Your task to perform on an android device: install app "Airtel Thanks" Image 0: 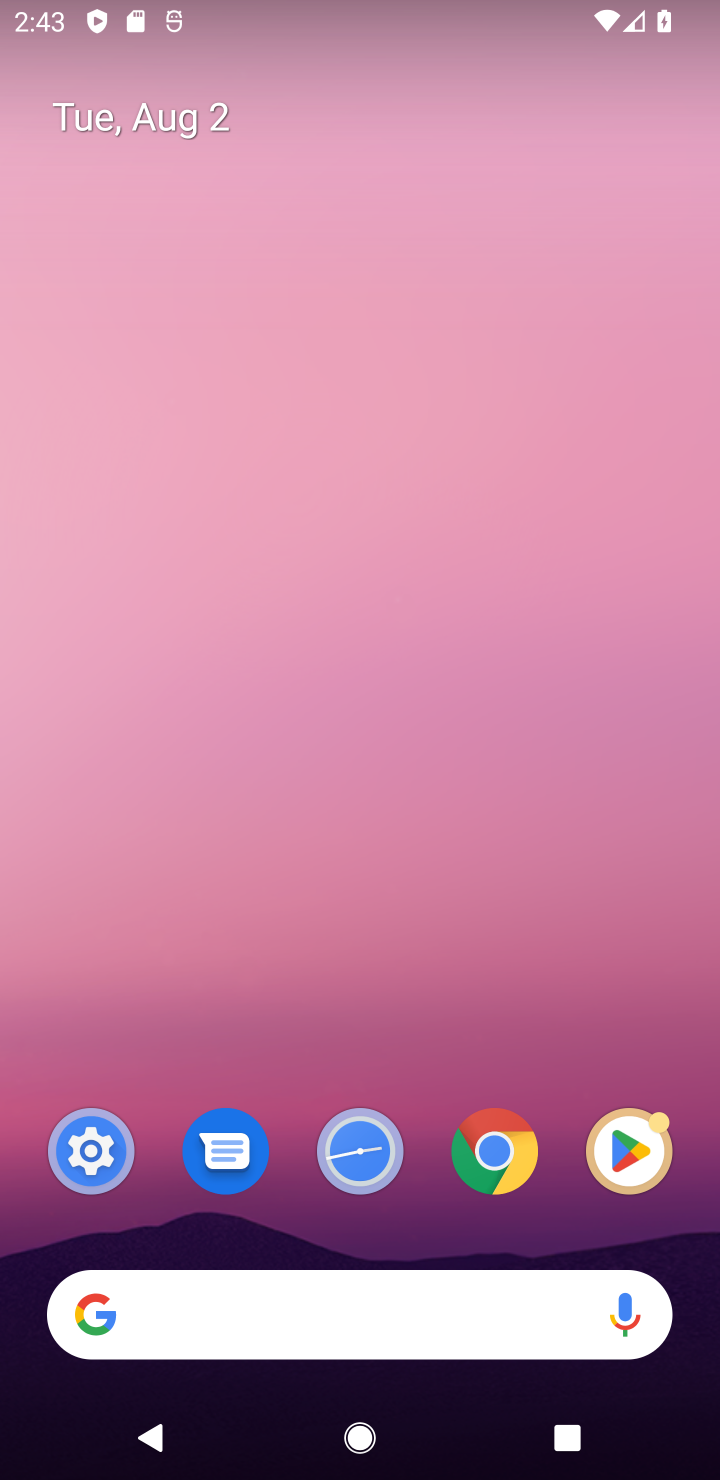
Step 0: drag from (562, 1026) to (426, 11)
Your task to perform on an android device: install app "Airtel Thanks" Image 1: 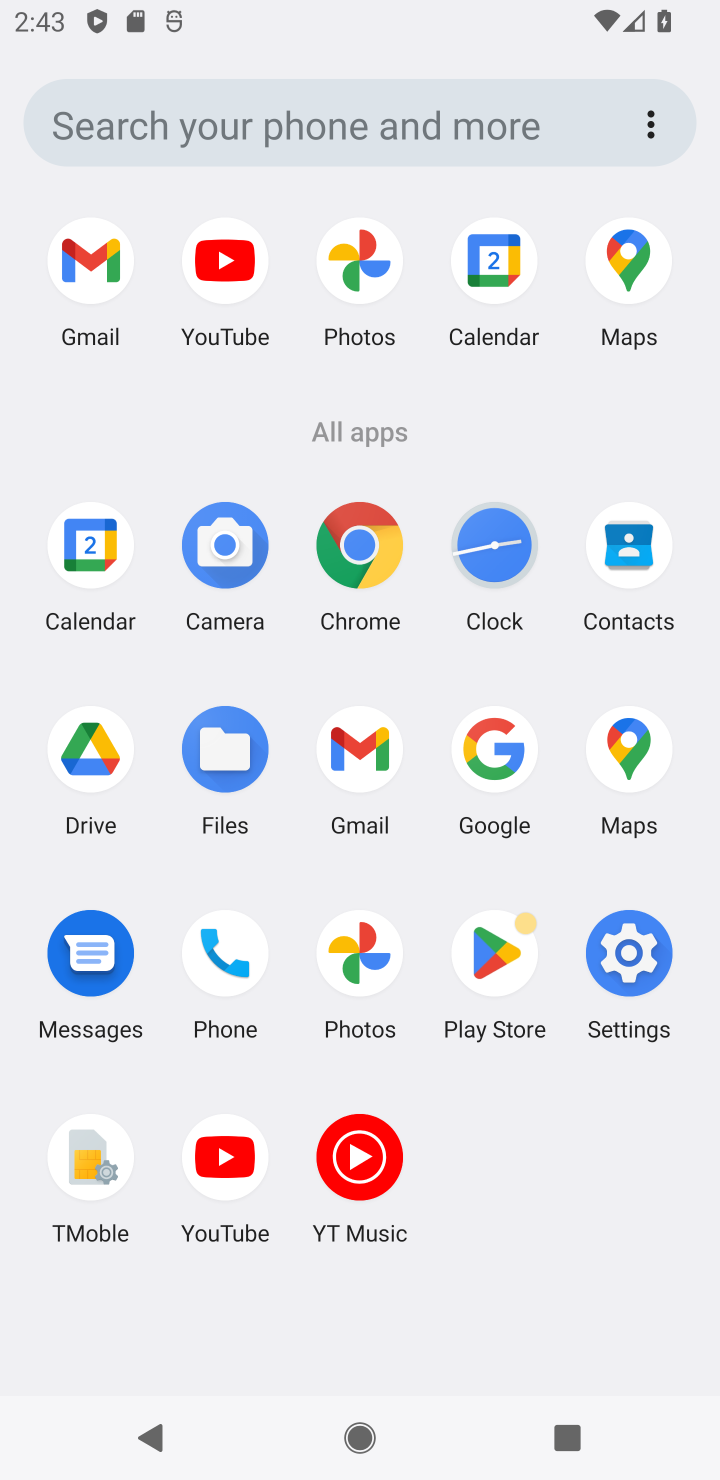
Step 1: click (497, 957)
Your task to perform on an android device: install app "Airtel Thanks" Image 2: 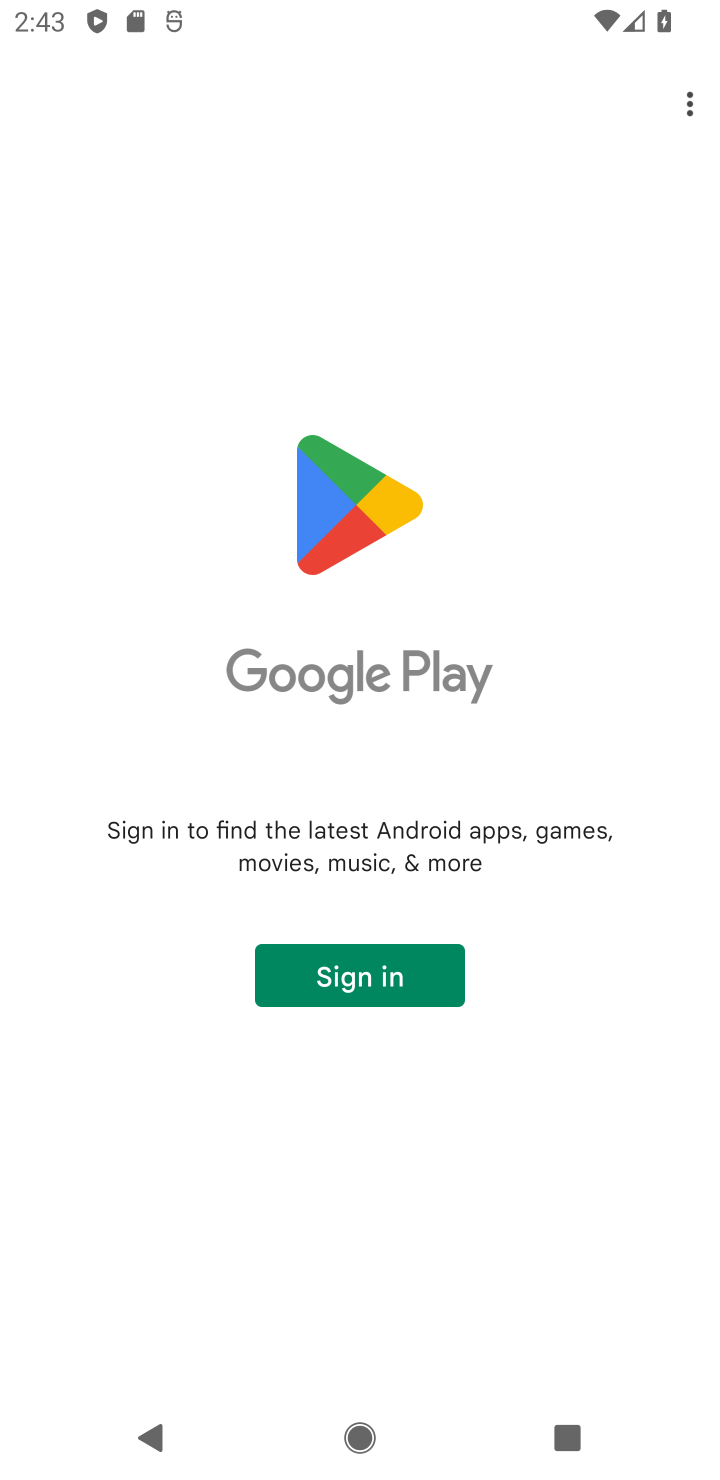
Step 2: task complete